Your task to perform on an android device: toggle translation in the chrome app Image 0: 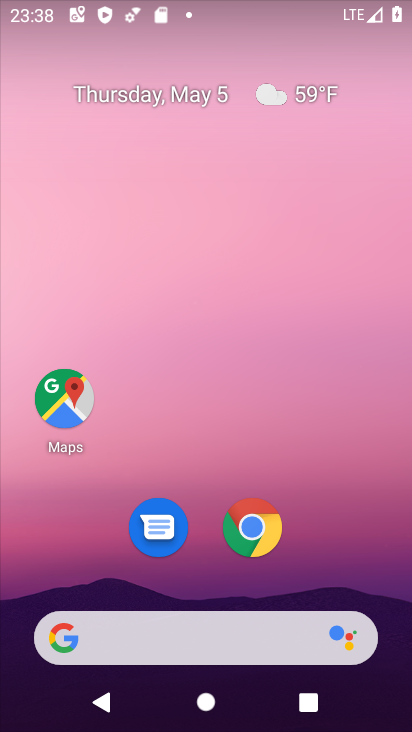
Step 0: click (256, 517)
Your task to perform on an android device: toggle translation in the chrome app Image 1: 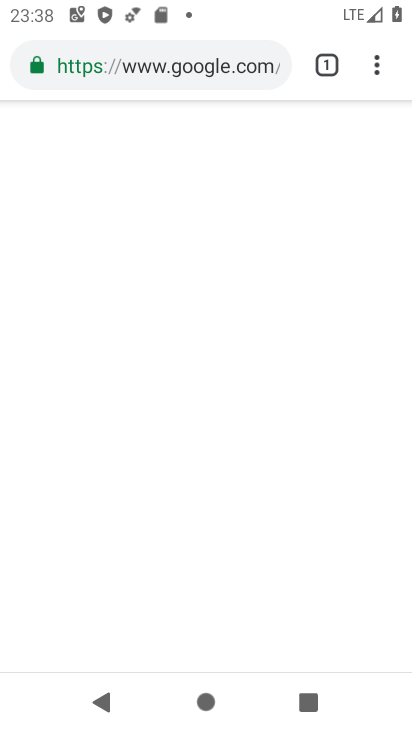
Step 1: click (373, 66)
Your task to perform on an android device: toggle translation in the chrome app Image 2: 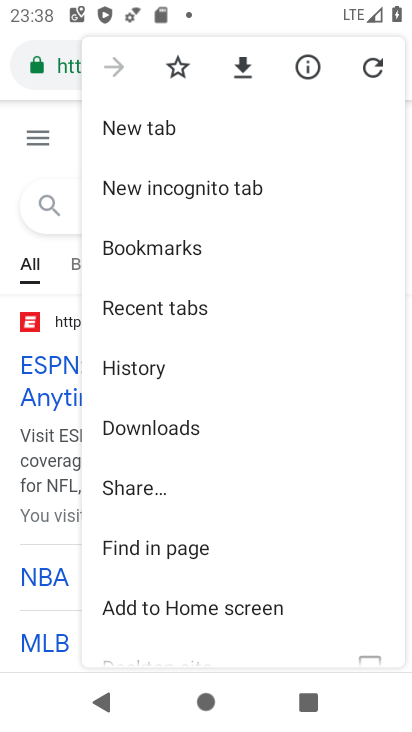
Step 2: drag from (162, 549) to (214, 229)
Your task to perform on an android device: toggle translation in the chrome app Image 3: 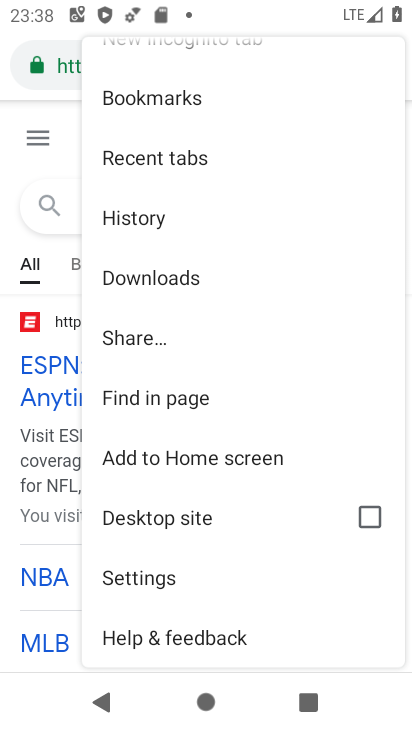
Step 3: click (155, 582)
Your task to perform on an android device: toggle translation in the chrome app Image 4: 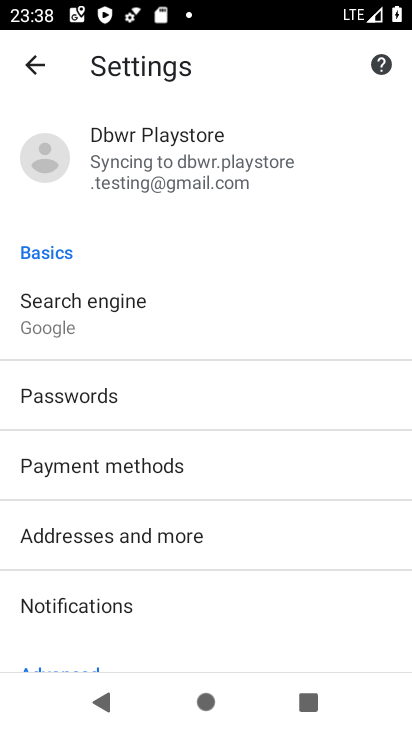
Step 4: drag from (161, 587) to (207, 338)
Your task to perform on an android device: toggle translation in the chrome app Image 5: 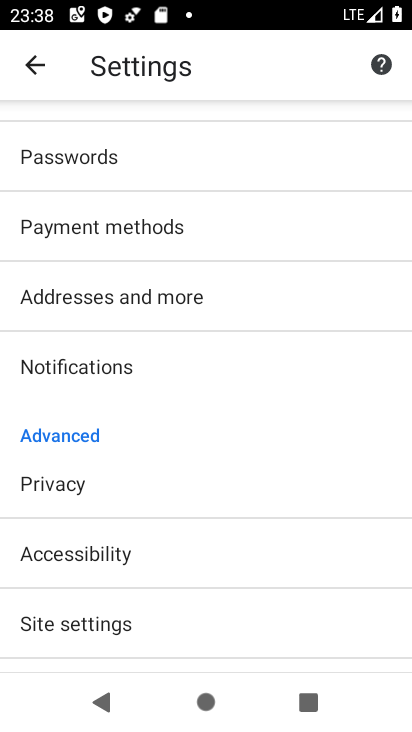
Step 5: drag from (142, 554) to (186, 424)
Your task to perform on an android device: toggle translation in the chrome app Image 6: 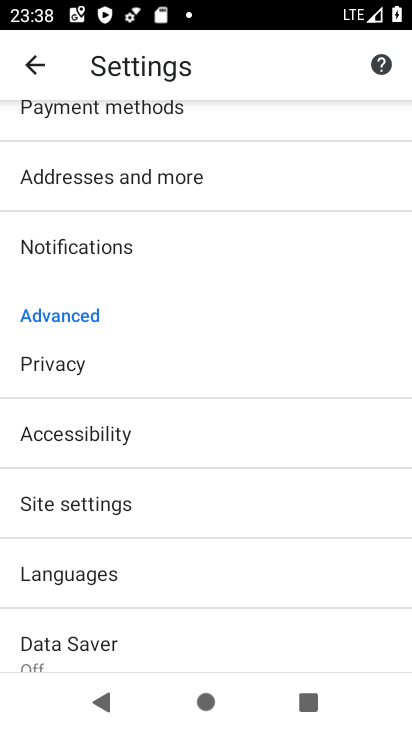
Step 6: click (117, 587)
Your task to perform on an android device: toggle translation in the chrome app Image 7: 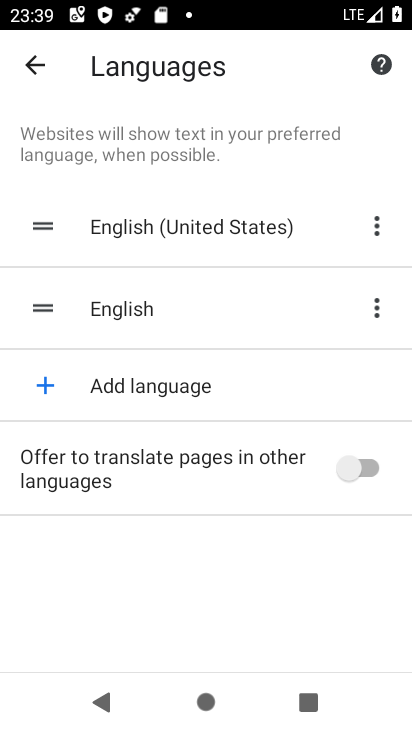
Step 7: click (387, 472)
Your task to perform on an android device: toggle translation in the chrome app Image 8: 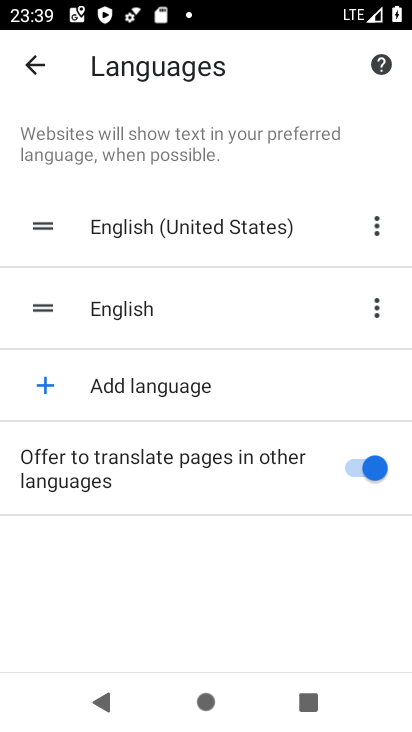
Step 8: task complete